Your task to perform on an android device: change alarm snooze length Image 0: 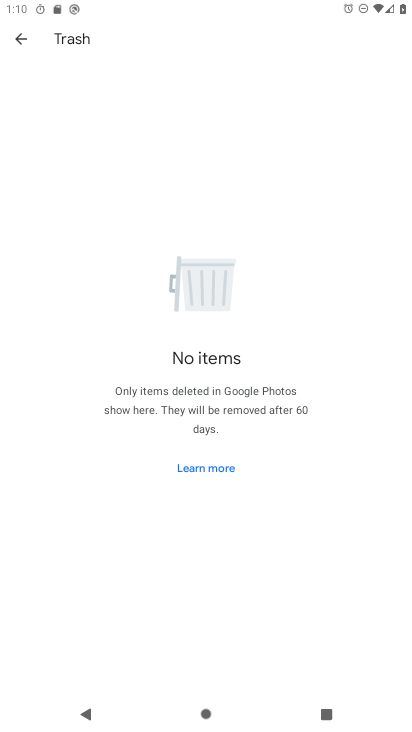
Step 0: press home button
Your task to perform on an android device: change alarm snooze length Image 1: 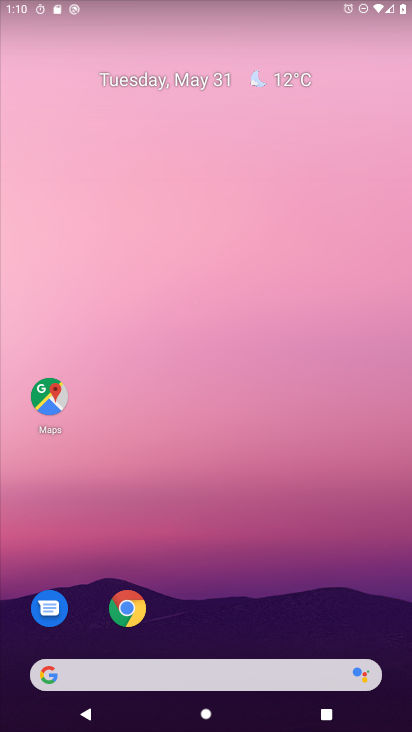
Step 1: drag from (258, 647) to (286, 18)
Your task to perform on an android device: change alarm snooze length Image 2: 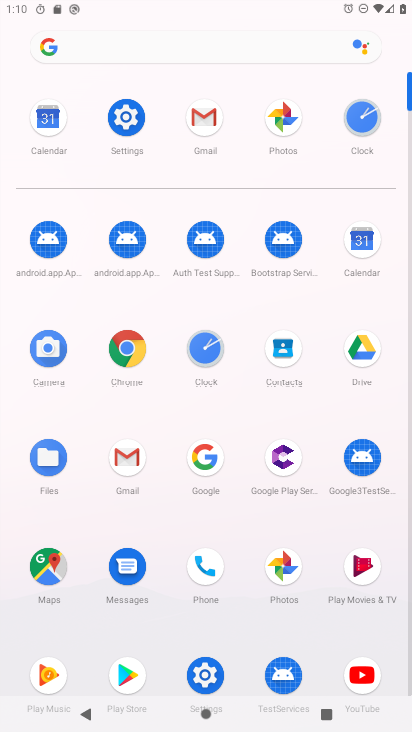
Step 2: click (359, 125)
Your task to perform on an android device: change alarm snooze length Image 3: 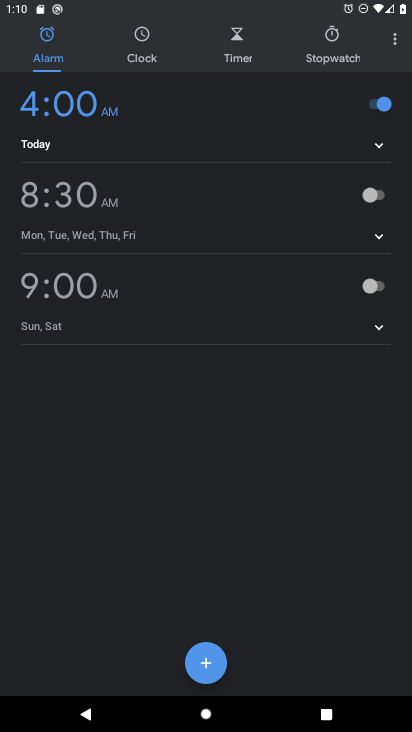
Step 3: click (395, 46)
Your task to perform on an android device: change alarm snooze length Image 4: 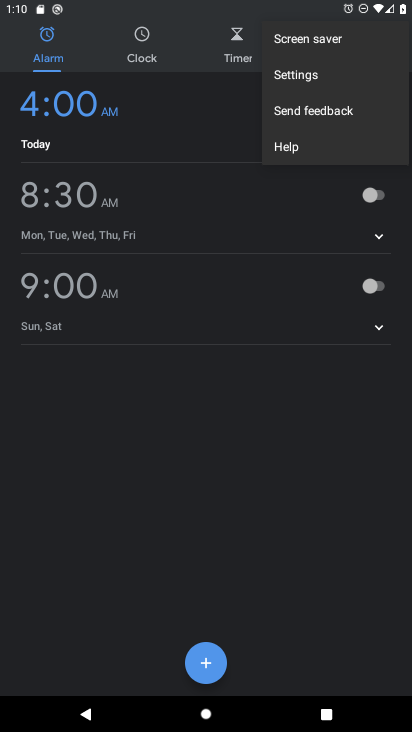
Step 4: click (300, 82)
Your task to perform on an android device: change alarm snooze length Image 5: 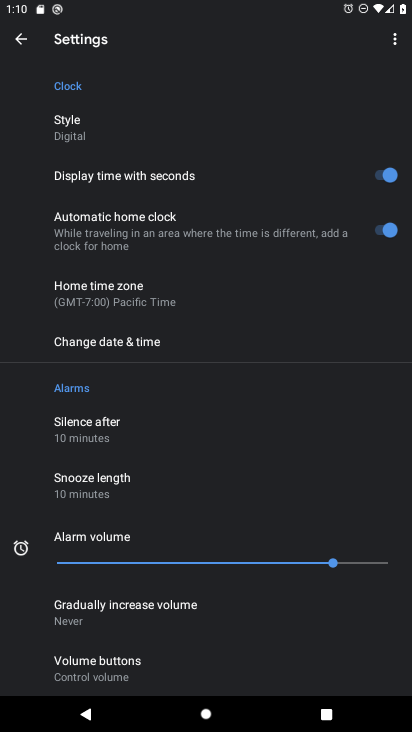
Step 5: click (88, 496)
Your task to perform on an android device: change alarm snooze length Image 6: 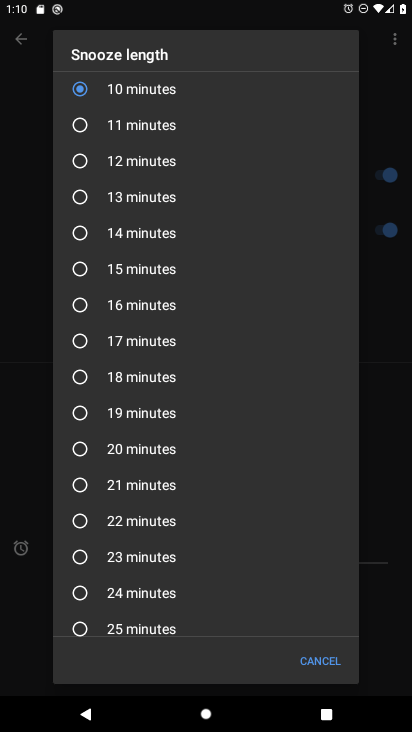
Step 6: click (83, 281)
Your task to perform on an android device: change alarm snooze length Image 7: 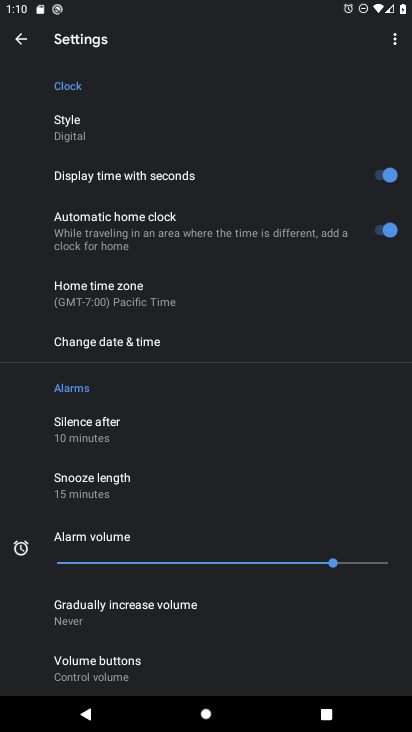
Step 7: task complete